Your task to perform on an android device: clear all cookies in the chrome app Image 0: 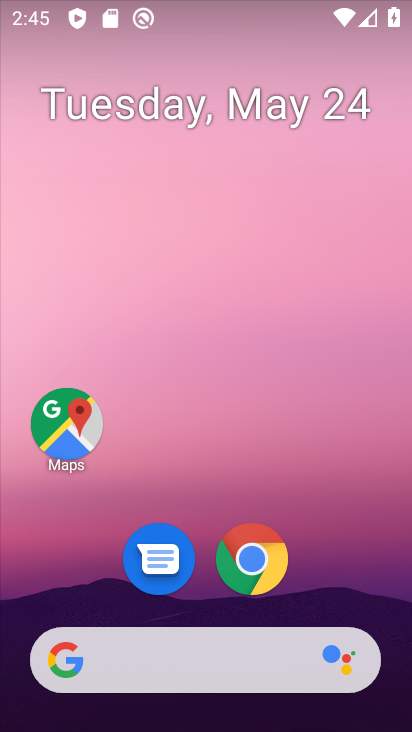
Step 0: click (236, 558)
Your task to perform on an android device: clear all cookies in the chrome app Image 1: 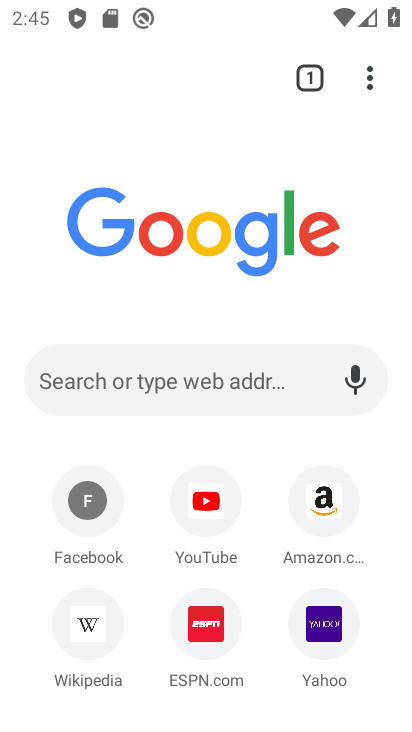
Step 1: drag from (361, 91) to (153, 436)
Your task to perform on an android device: clear all cookies in the chrome app Image 2: 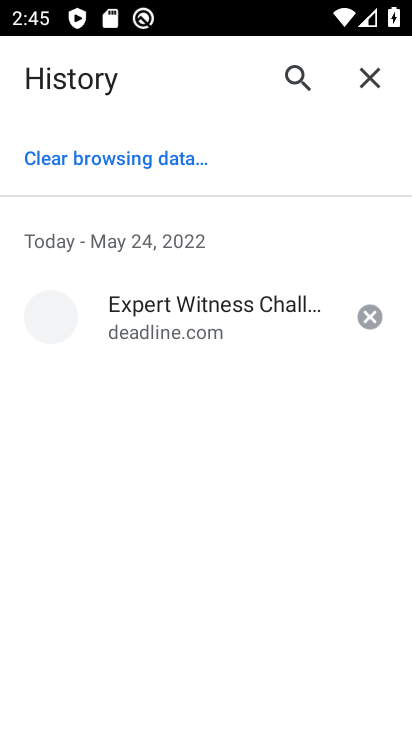
Step 2: click (123, 164)
Your task to perform on an android device: clear all cookies in the chrome app Image 3: 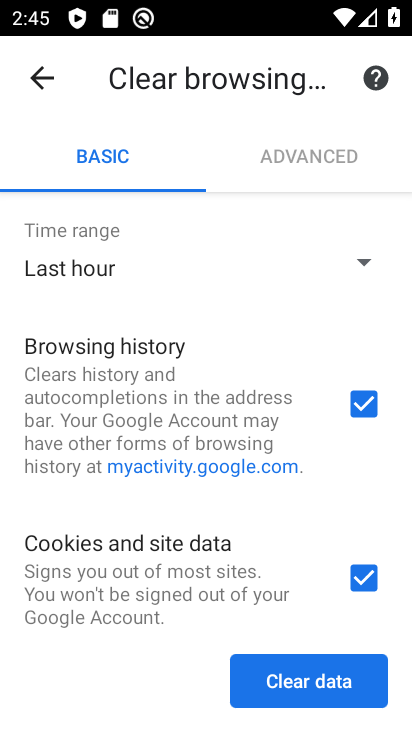
Step 3: click (295, 698)
Your task to perform on an android device: clear all cookies in the chrome app Image 4: 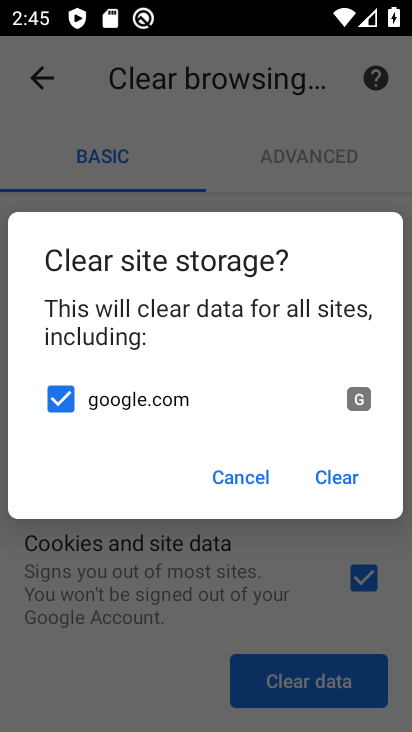
Step 4: click (331, 473)
Your task to perform on an android device: clear all cookies in the chrome app Image 5: 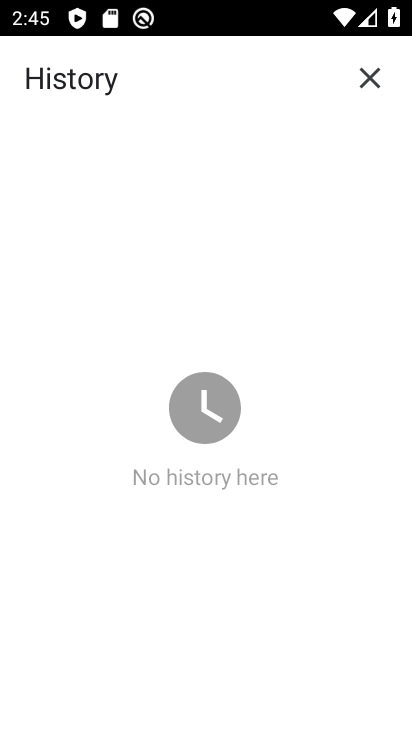
Step 5: task complete